Your task to perform on an android device: Open the calendar and show me this week's events? Image 0: 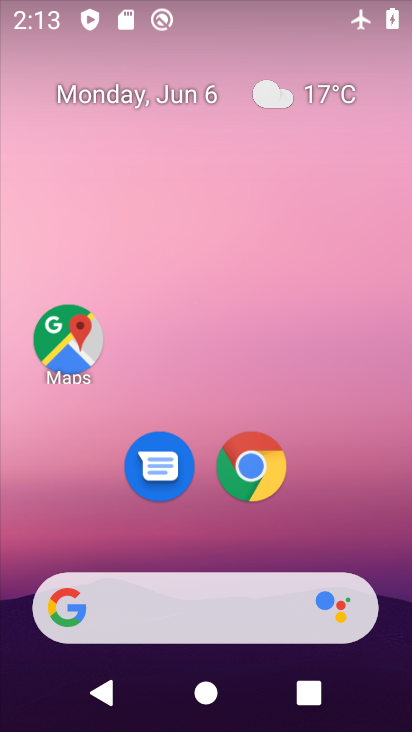
Step 0: drag from (227, 345) to (200, 16)
Your task to perform on an android device: Open the calendar and show me this week's events? Image 1: 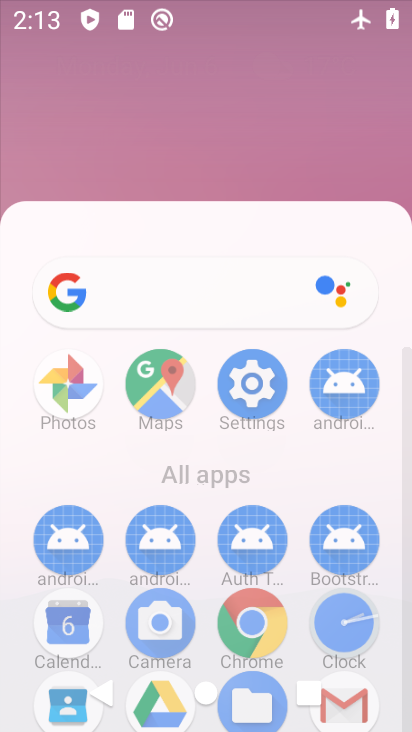
Step 1: drag from (267, 599) to (235, 130)
Your task to perform on an android device: Open the calendar and show me this week's events? Image 2: 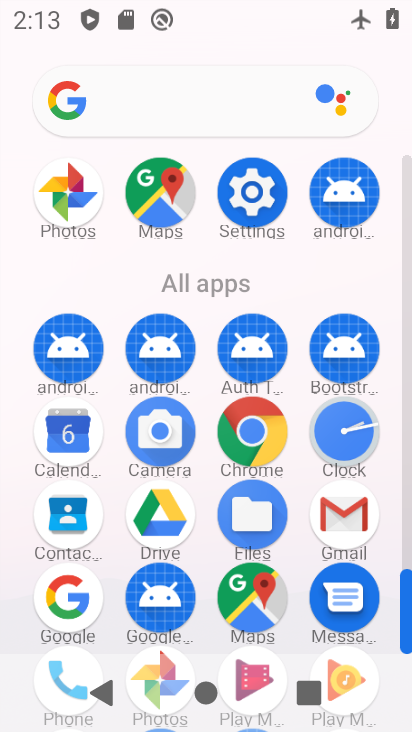
Step 2: click (70, 440)
Your task to perform on an android device: Open the calendar and show me this week's events? Image 3: 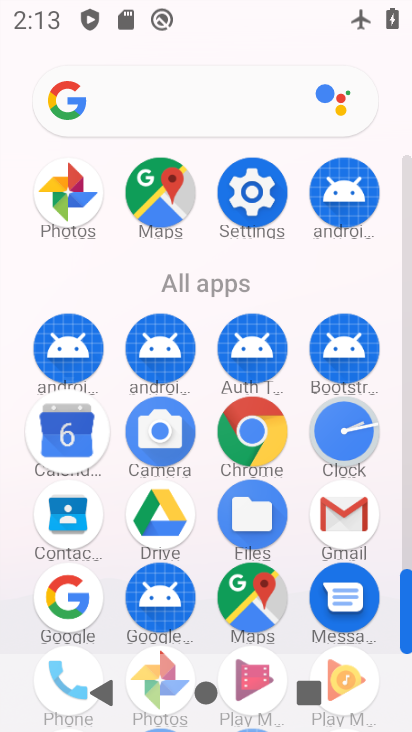
Step 3: click (69, 435)
Your task to perform on an android device: Open the calendar and show me this week's events? Image 4: 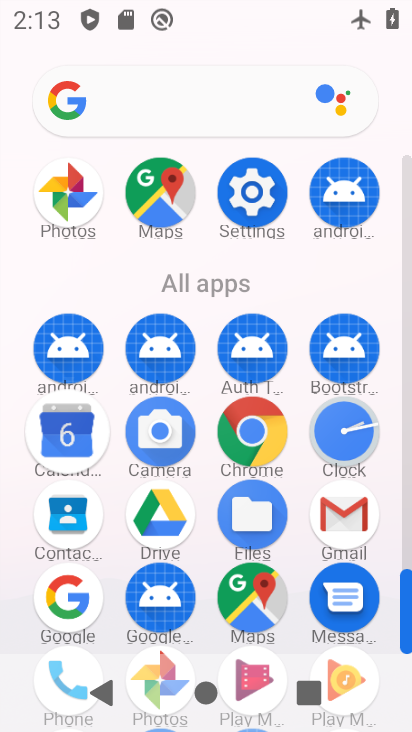
Step 4: click (69, 434)
Your task to perform on an android device: Open the calendar and show me this week's events? Image 5: 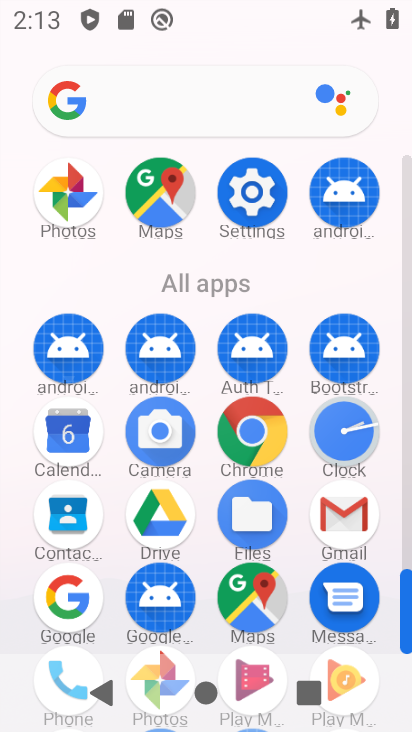
Step 5: click (71, 442)
Your task to perform on an android device: Open the calendar and show me this week's events? Image 6: 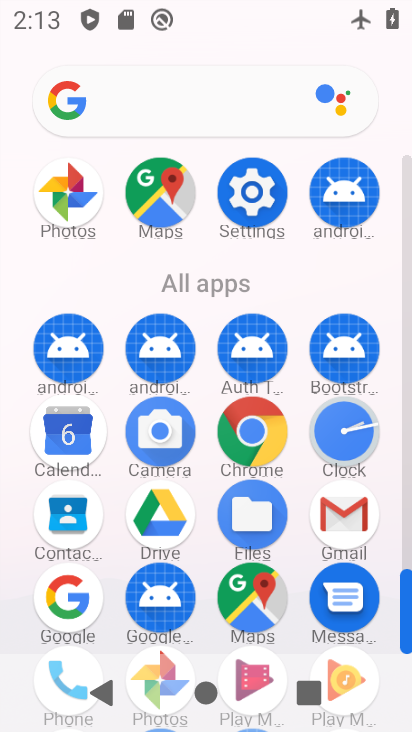
Step 6: click (62, 438)
Your task to perform on an android device: Open the calendar and show me this week's events? Image 7: 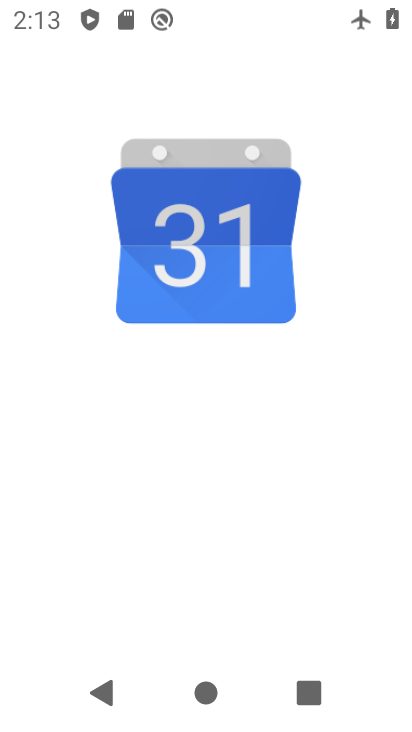
Step 7: click (68, 425)
Your task to perform on an android device: Open the calendar and show me this week's events? Image 8: 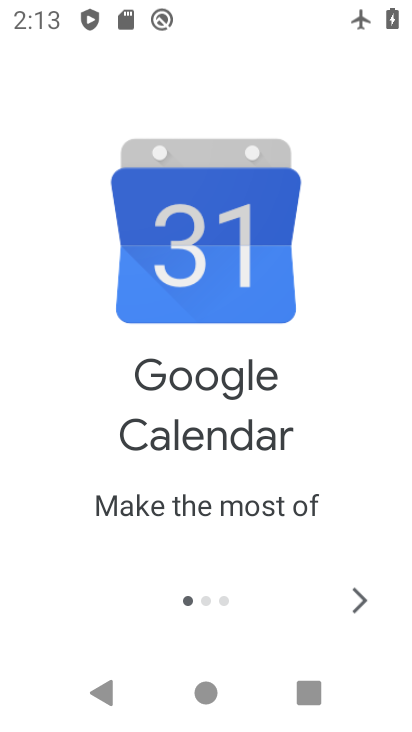
Step 8: click (365, 591)
Your task to perform on an android device: Open the calendar and show me this week's events? Image 9: 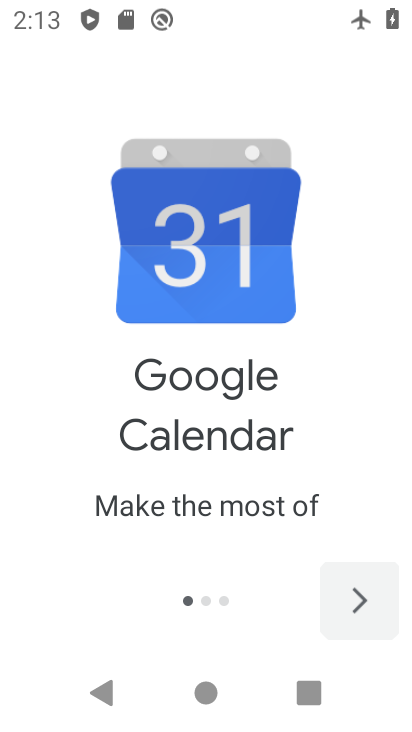
Step 9: click (360, 599)
Your task to perform on an android device: Open the calendar and show me this week's events? Image 10: 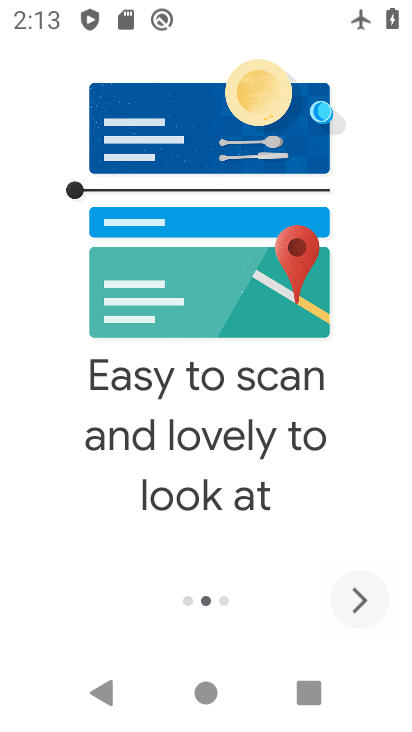
Step 10: click (360, 600)
Your task to perform on an android device: Open the calendar and show me this week's events? Image 11: 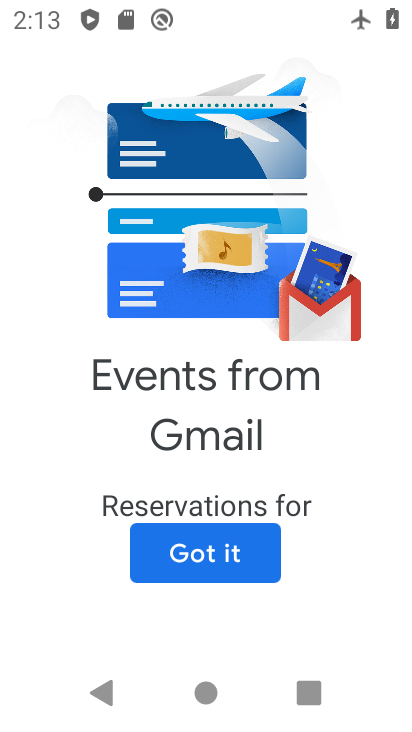
Step 11: click (363, 601)
Your task to perform on an android device: Open the calendar and show me this week's events? Image 12: 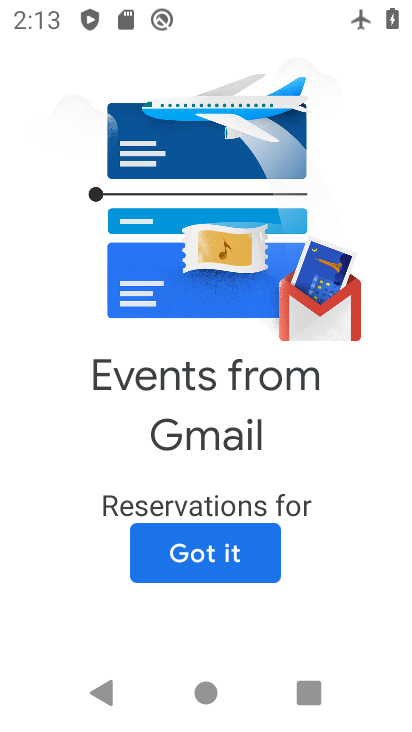
Step 12: click (362, 600)
Your task to perform on an android device: Open the calendar and show me this week's events? Image 13: 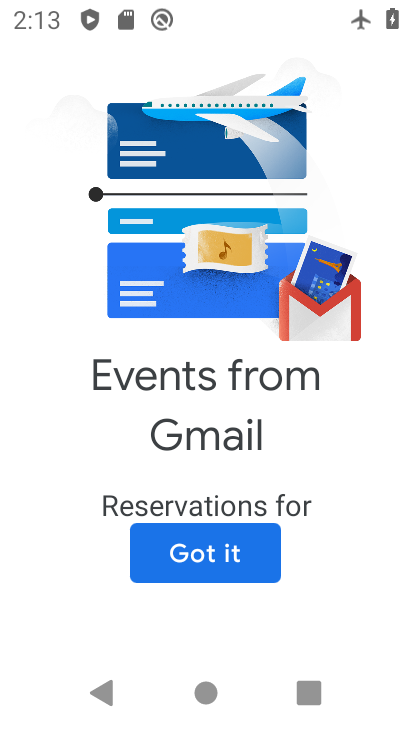
Step 13: click (359, 600)
Your task to perform on an android device: Open the calendar and show me this week's events? Image 14: 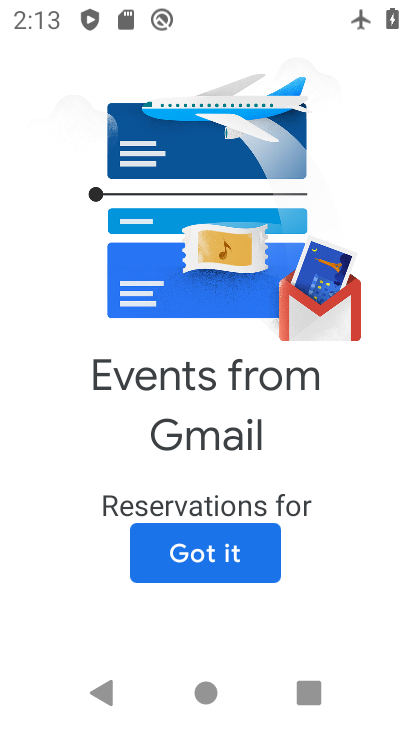
Step 14: click (219, 546)
Your task to perform on an android device: Open the calendar and show me this week's events? Image 15: 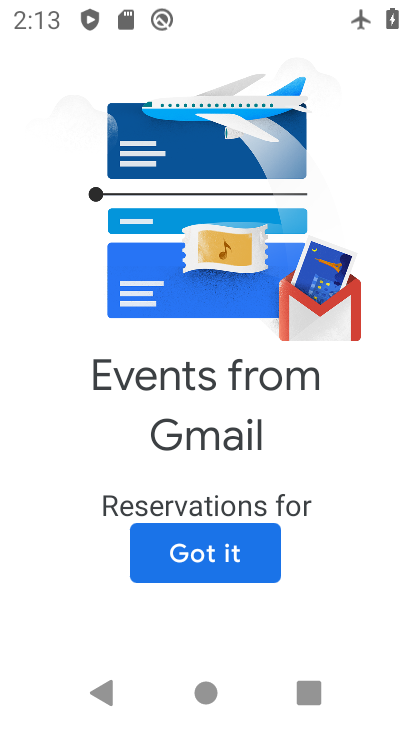
Step 15: click (210, 540)
Your task to perform on an android device: Open the calendar and show me this week's events? Image 16: 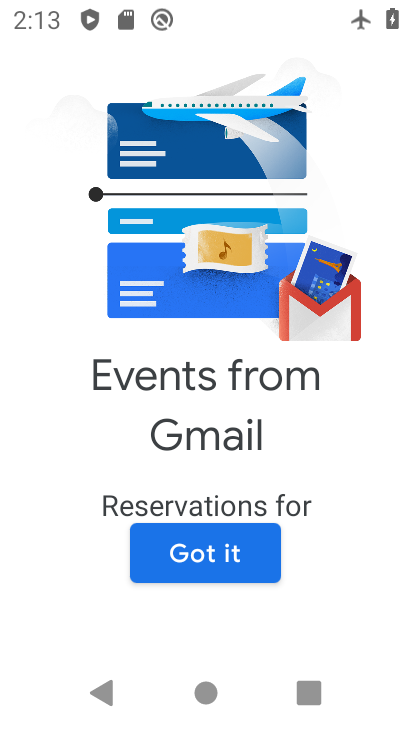
Step 16: click (210, 539)
Your task to perform on an android device: Open the calendar and show me this week's events? Image 17: 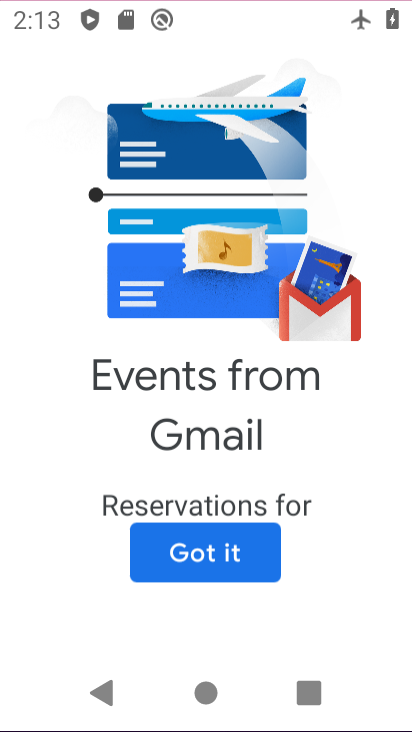
Step 17: click (207, 540)
Your task to perform on an android device: Open the calendar and show me this week's events? Image 18: 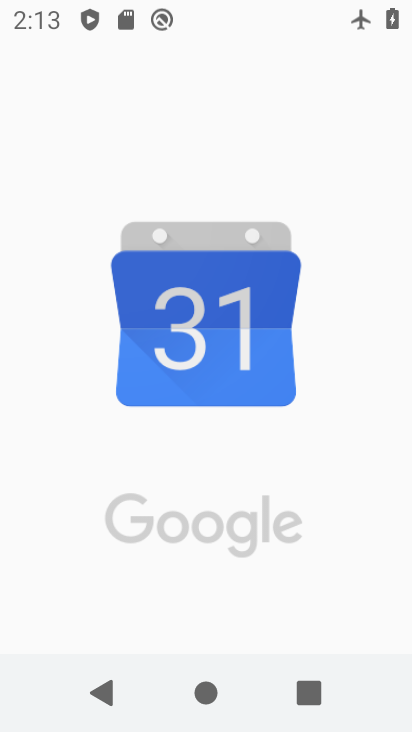
Step 18: click (201, 555)
Your task to perform on an android device: Open the calendar and show me this week's events? Image 19: 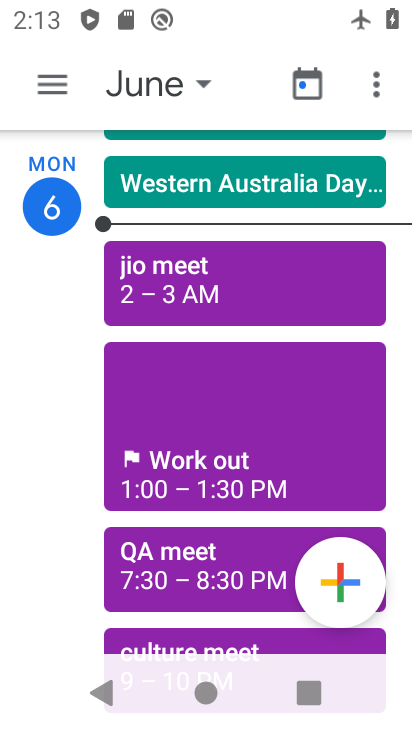
Step 19: drag from (200, 442) to (146, 101)
Your task to perform on an android device: Open the calendar and show me this week's events? Image 20: 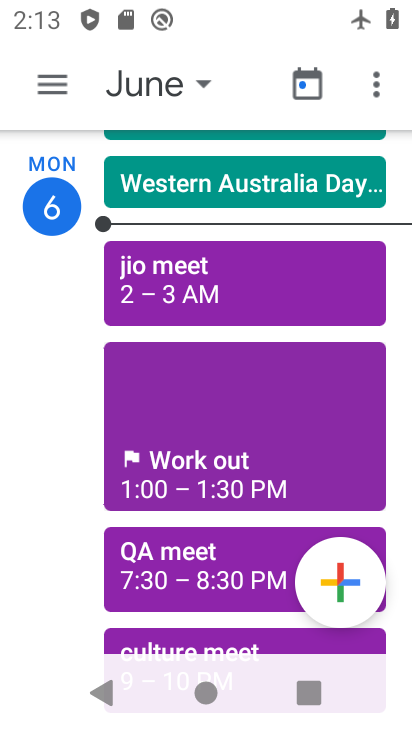
Step 20: drag from (187, 389) to (171, 115)
Your task to perform on an android device: Open the calendar and show me this week's events? Image 21: 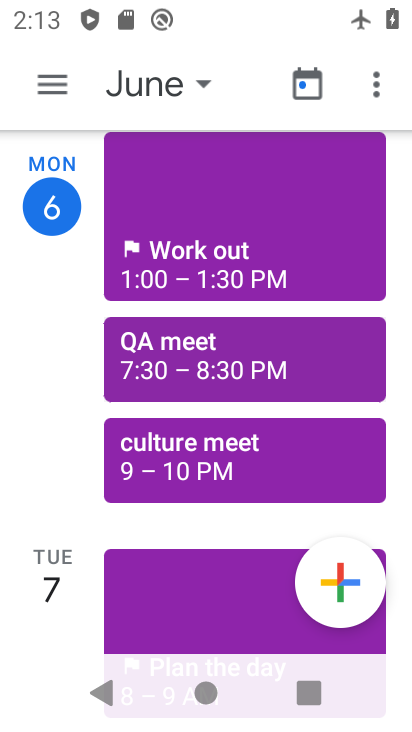
Step 21: drag from (191, 362) to (187, 143)
Your task to perform on an android device: Open the calendar and show me this week's events? Image 22: 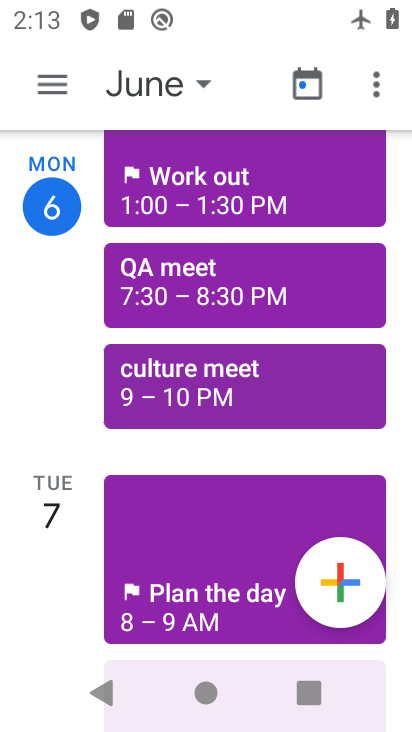
Step 22: drag from (198, 369) to (170, 135)
Your task to perform on an android device: Open the calendar and show me this week's events? Image 23: 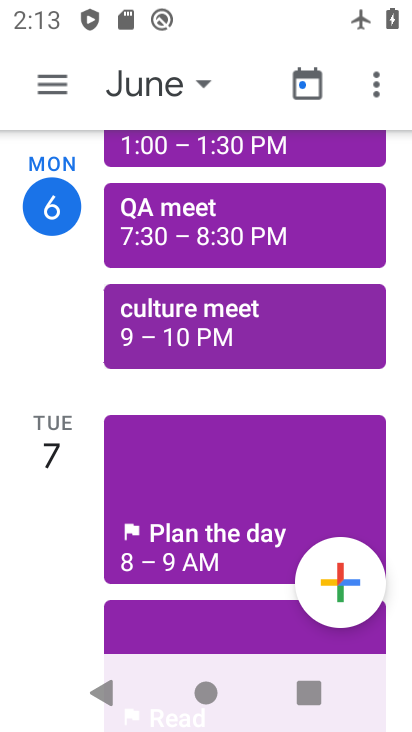
Step 23: drag from (183, 442) to (170, 168)
Your task to perform on an android device: Open the calendar and show me this week's events? Image 24: 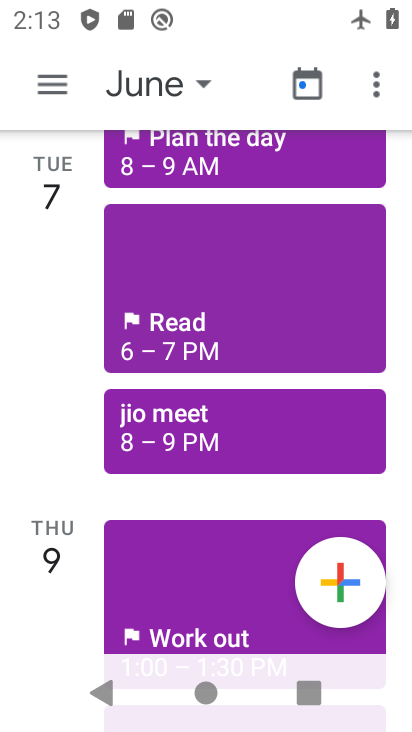
Step 24: drag from (164, 447) to (126, 153)
Your task to perform on an android device: Open the calendar and show me this week's events? Image 25: 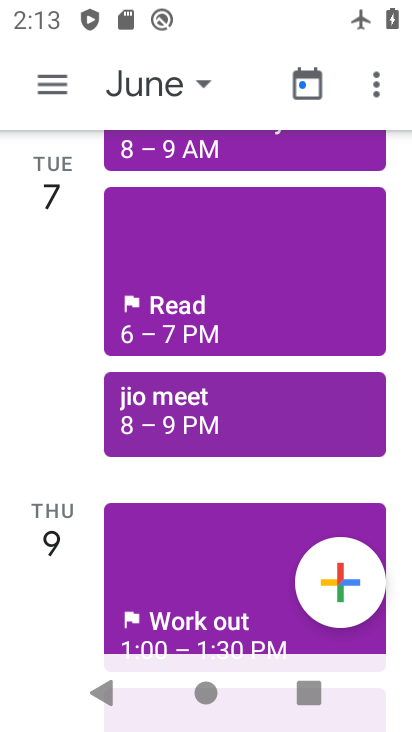
Step 25: drag from (205, 392) to (206, 120)
Your task to perform on an android device: Open the calendar and show me this week's events? Image 26: 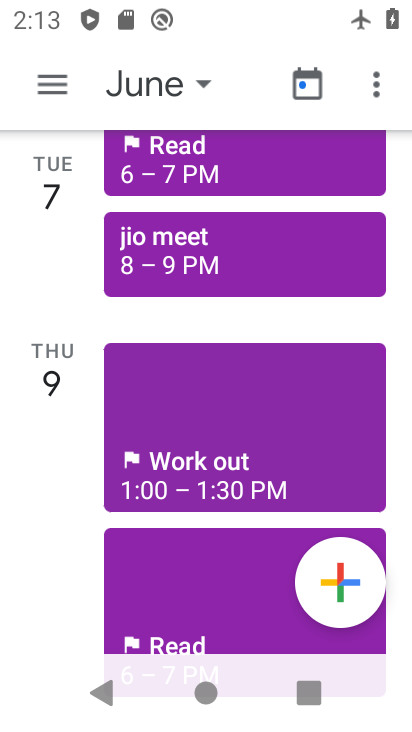
Step 26: drag from (224, 424) to (159, 215)
Your task to perform on an android device: Open the calendar and show me this week's events? Image 27: 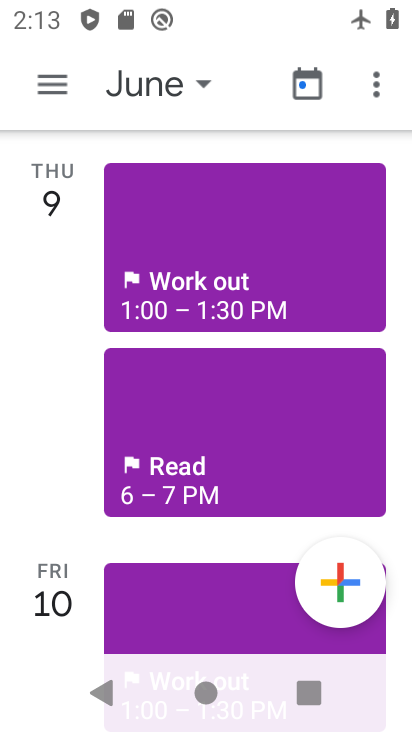
Step 27: click (189, 583)
Your task to perform on an android device: Open the calendar and show me this week's events? Image 28: 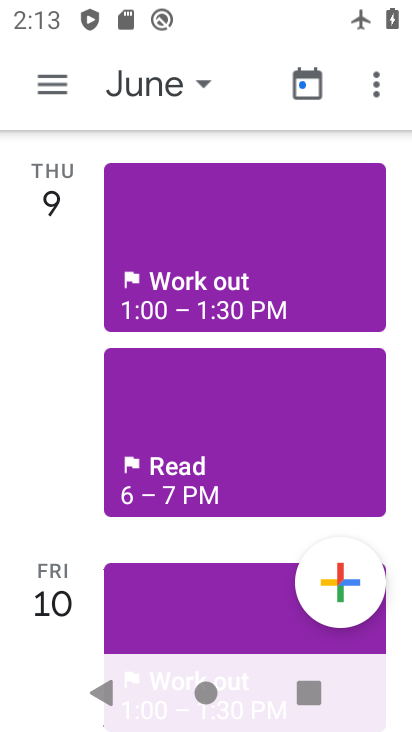
Step 28: click (189, 583)
Your task to perform on an android device: Open the calendar and show me this week's events? Image 29: 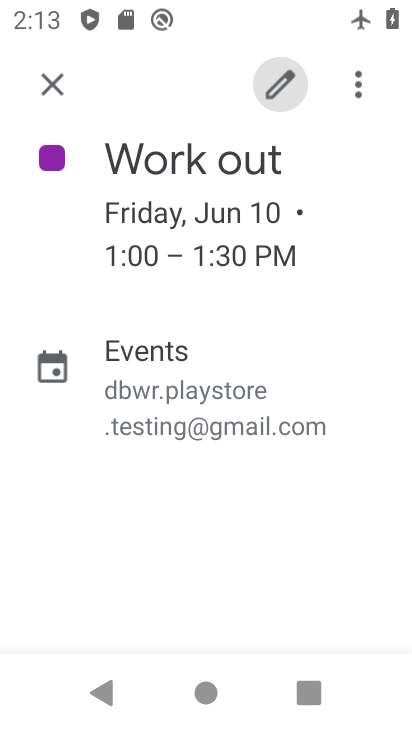
Step 29: click (189, 583)
Your task to perform on an android device: Open the calendar and show me this week's events? Image 30: 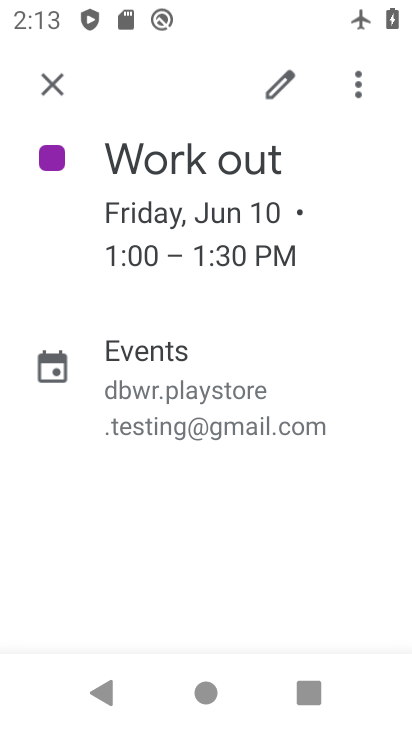
Step 30: click (189, 583)
Your task to perform on an android device: Open the calendar and show me this week's events? Image 31: 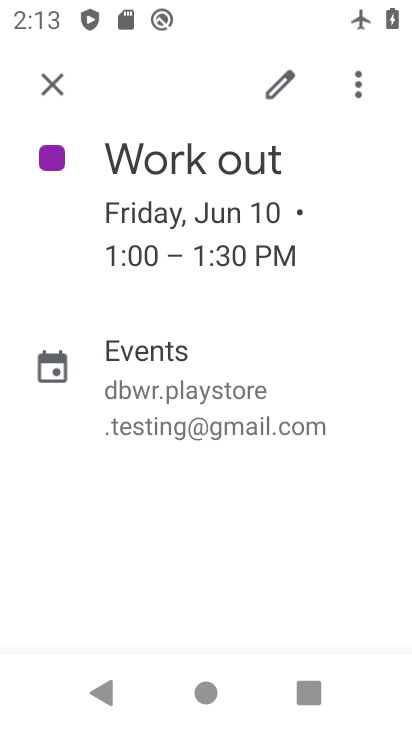
Step 31: task complete